Your task to perform on an android device: turn off priority inbox in the gmail app Image 0: 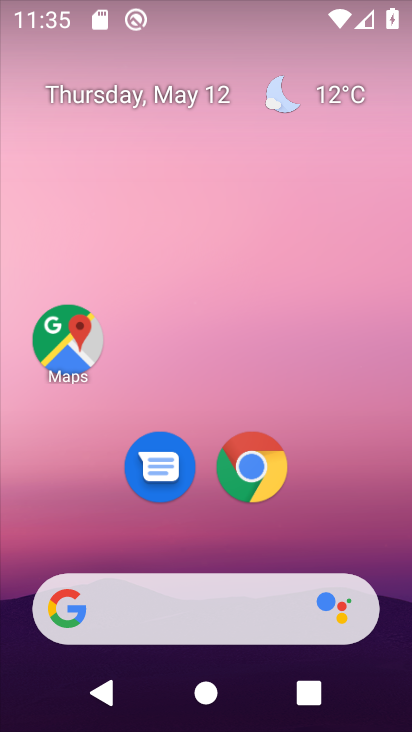
Step 0: drag from (277, 216) to (191, 11)
Your task to perform on an android device: turn off priority inbox in the gmail app Image 1: 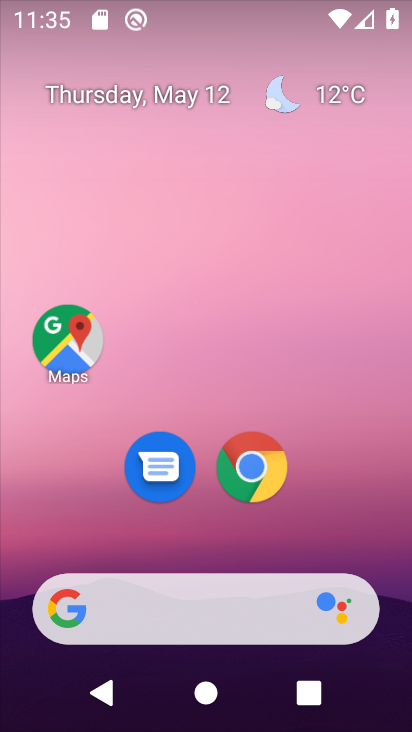
Step 1: drag from (313, 427) to (237, 24)
Your task to perform on an android device: turn off priority inbox in the gmail app Image 2: 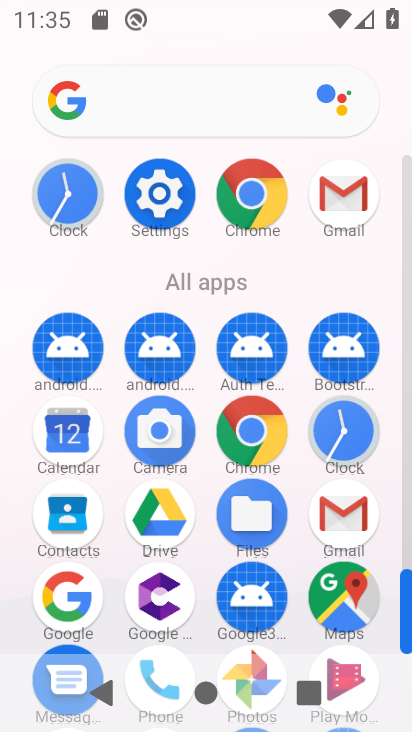
Step 2: click (339, 204)
Your task to perform on an android device: turn off priority inbox in the gmail app Image 3: 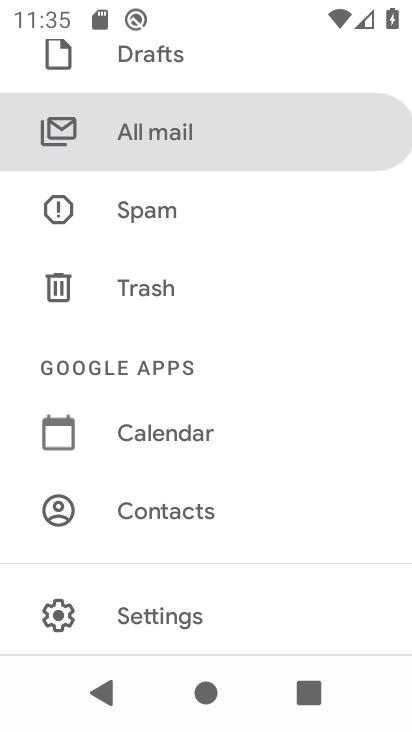
Step 3: click (176, 619)
Your task to perform on an android device: turn off priority inbox in the gmail app Image 4: 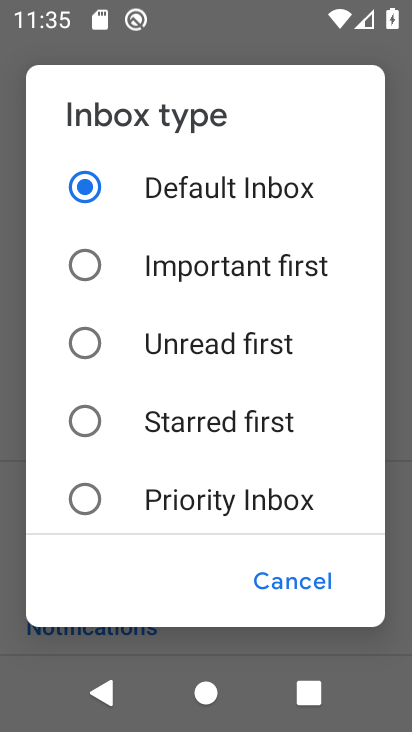
Step 4: task complete